Your task to perform on an android device: Do I have any events today? Image 0: 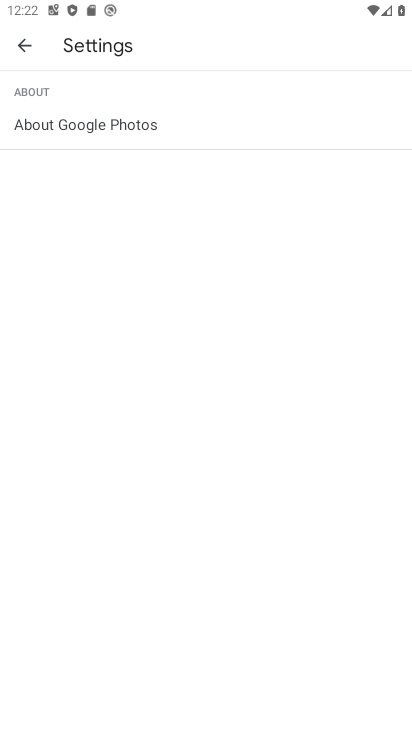
Step 0: press home button
Your task to perform on an android device: Do I have any events today? Image 1: 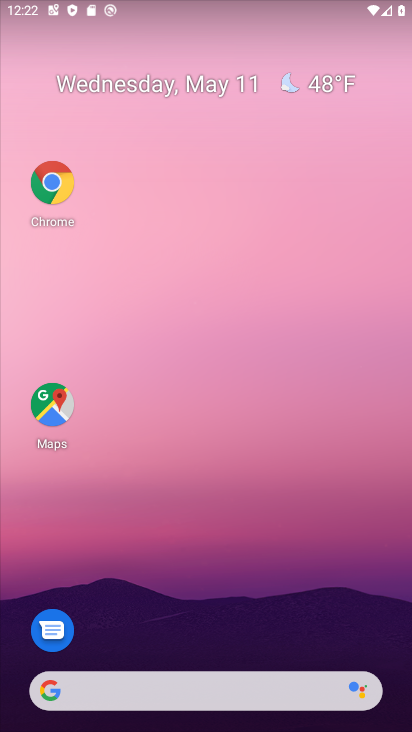
Step 1: drag from (199, 672) to (51, 133)
Your task to perform on an android device: Do I have any events today? Image 2: 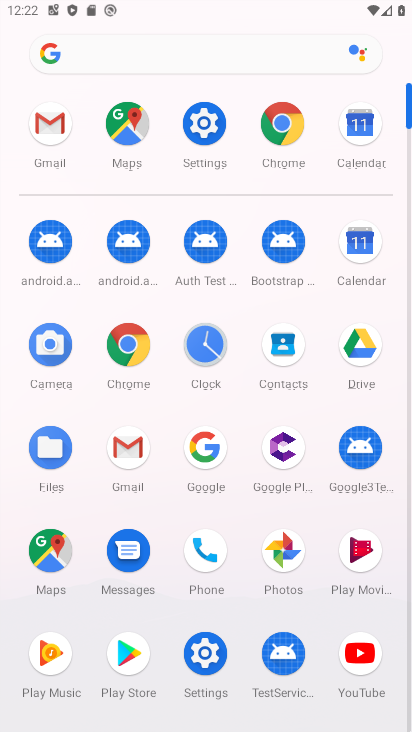
Step 2: click (359, 255)
Your task to perform on an android device: Do I have any events today? Image 3: 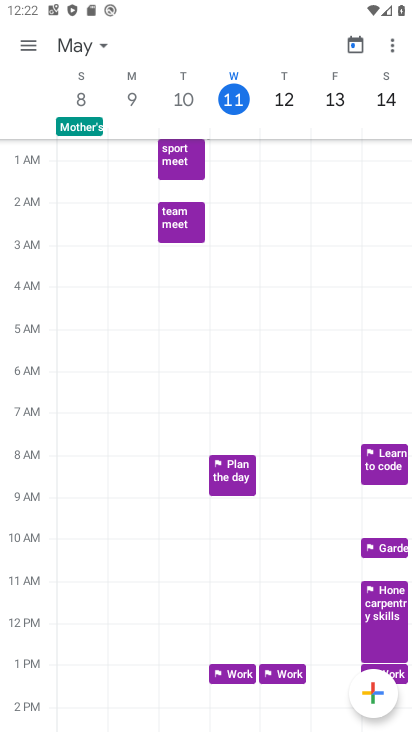
Step 3: task complete